Your task to perform on an android device: Go to internet settings Image 0: 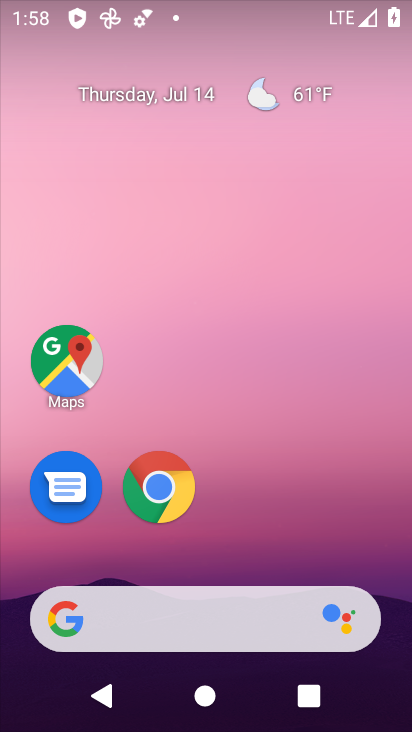
Step 0: drag from (350, 549) to (361, 192)
Your task to perform on an android device: Go to internet settings Image 1: 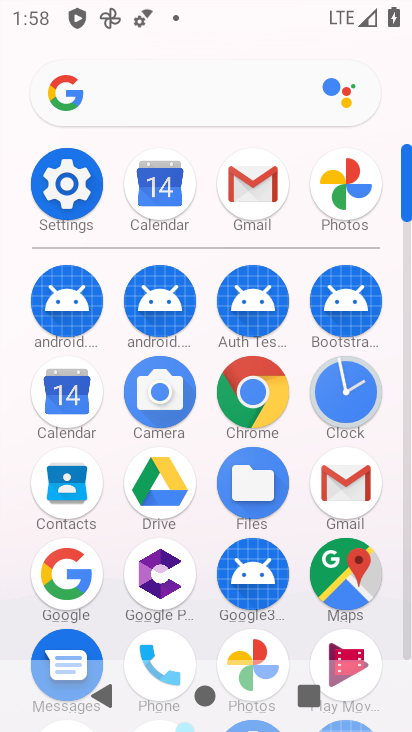
Step 1: click (68, 206)
Your task to perform on an android device: Go to internet settings Image 2: 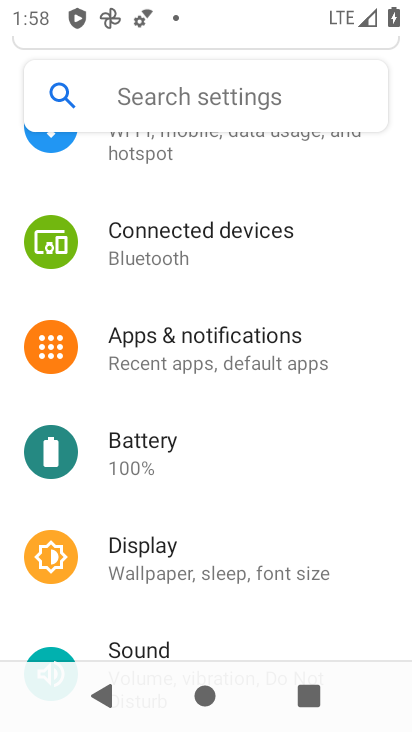
Step 2: drag from (336, 540) to (338, 439)
Your task to perform on an android device: Go to internet settings Image 3: 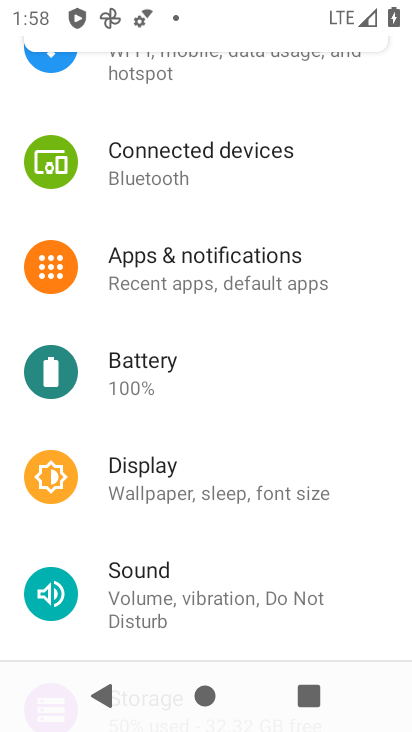
Step 3: drag from (355, 558) to (355, 444)
Your task to perform on an android device: Go to internet settings Image 4: 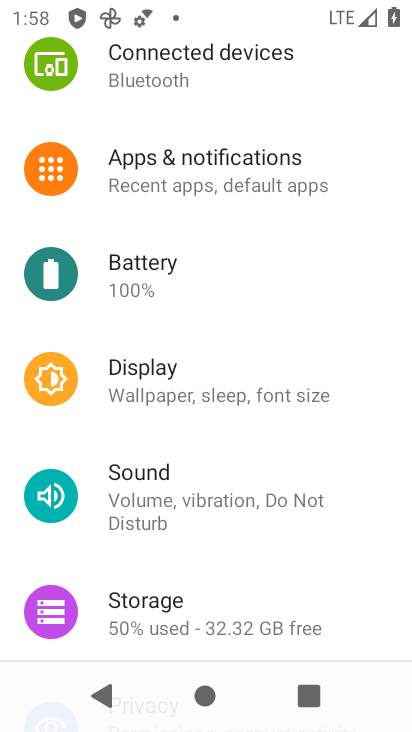
Step 4: drag from (334, 564) to (351, 457)
Your task to perform on an android device: Go to internet settings Image 5: 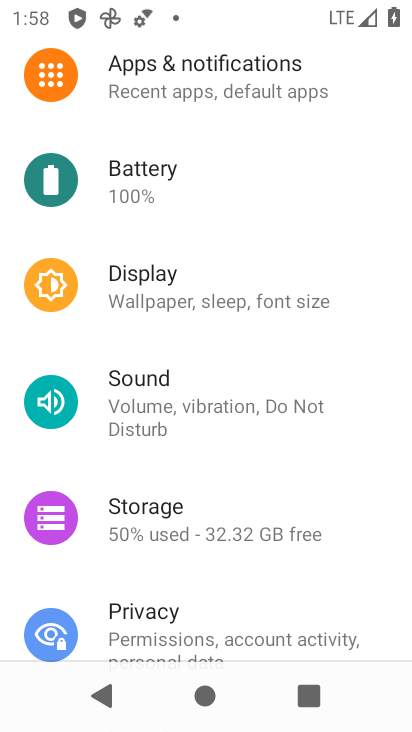
Step 5: drag from (341, 555) to (361, 393)
Your task to perform on an android device: Go to internet settings Image 6: 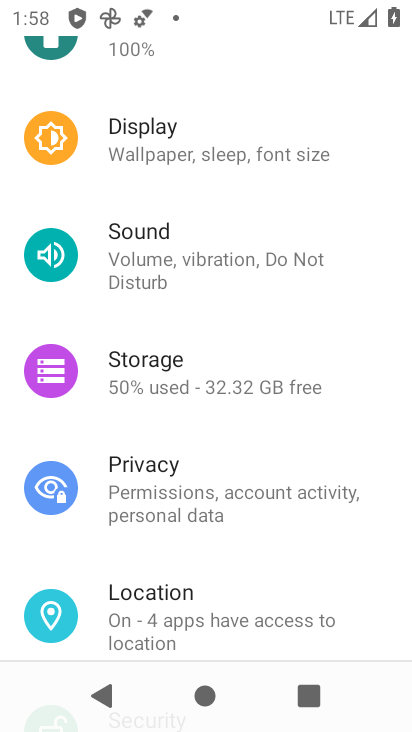
Step 6: drag from (357, 550) to (373, 434)
Your task to perform on an android device: Go to internet settings Image 7: 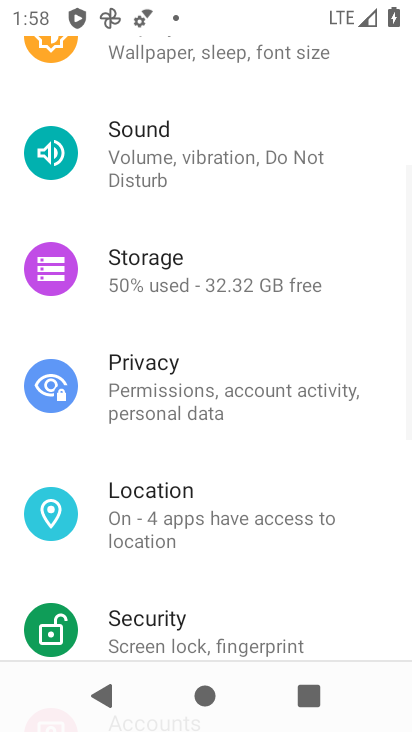
Step 7: drag from (366, 569) to (370, 465)
Your task to perform on an android device: Go to internet settings Image 8: 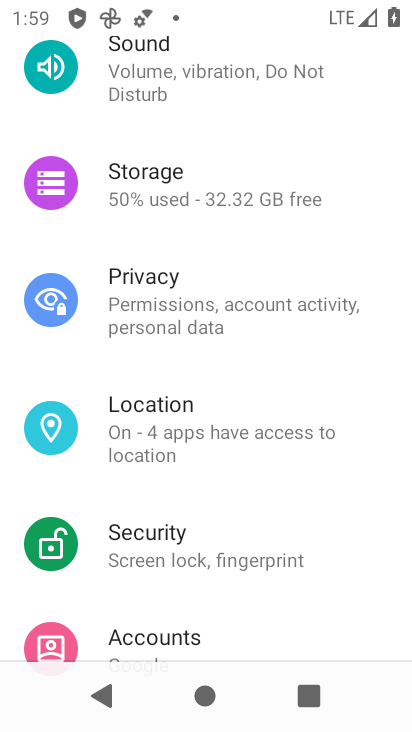
Step 8: drag from (340, 581) to (338, 480)
Your task to perform on an android device: Go to internet settings Image 9: 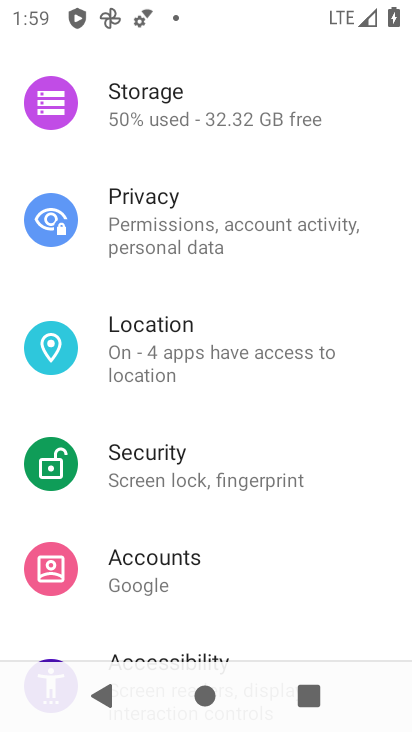
Step 9: drag from (333, 584) to (347, 466)
Your task to perform on an android device: Go to internet settings Image 10: 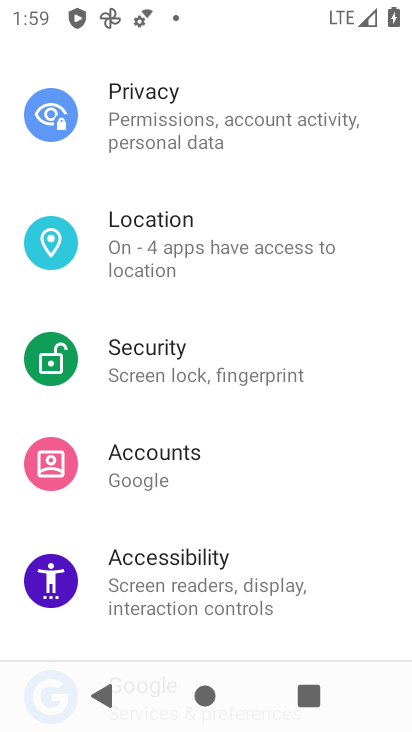
Step 10: drag from (356, 580) to (356, 430)
Your task to perform on an android device: Go to internet settings Image 11: 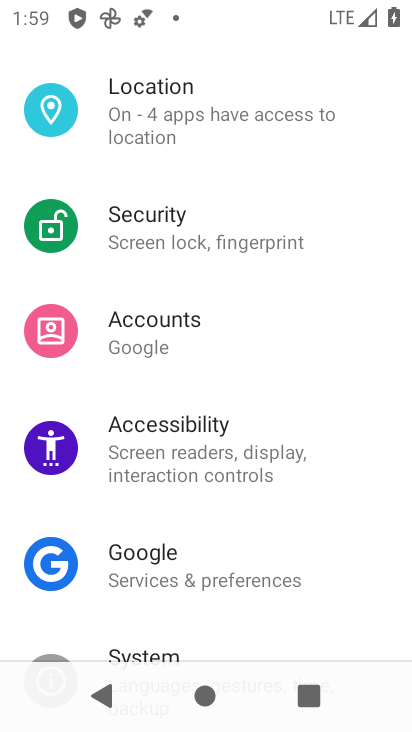
Step 11: drag from (356, 573) to (384, 323)
Your task to perform on an android device: Go to internet settings Image 12: 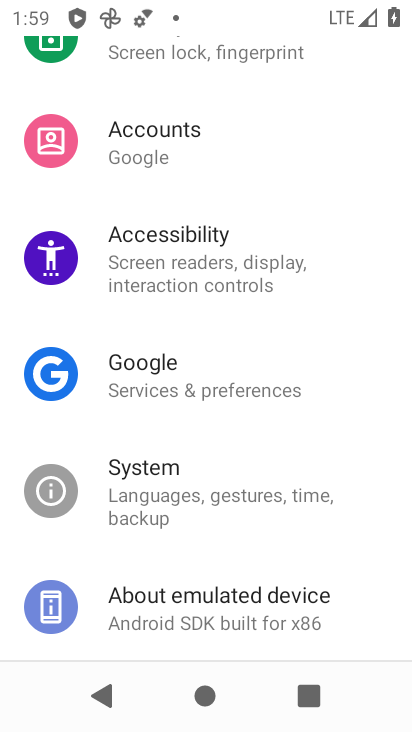
Step 12: drag from (384, 284) to (385, 385)
Your task to perform on an android device: Go to internet settings Image 13: 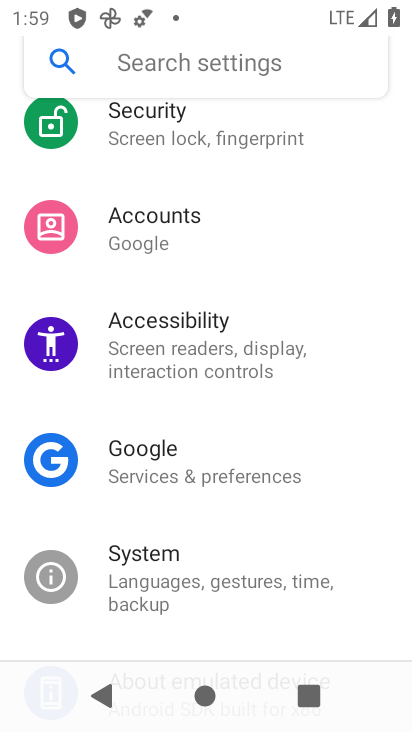
Step 13: drag from (386, 281) to (368, 389)
Your task to perform on an android device: Go to internet settings Image 14: 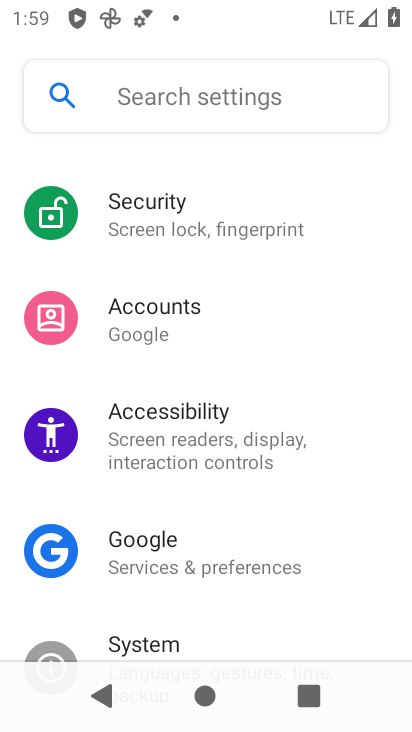
Step 14: drag from (348, 277) to (343, 395)
Your task to perform on an android device: Go to internet settings Image 15: 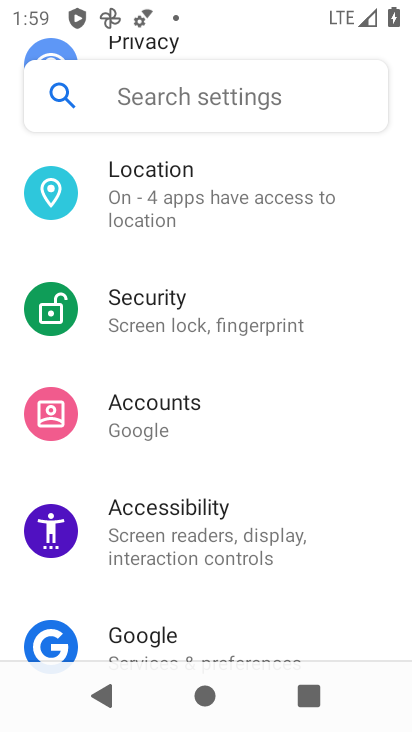
Step 15: drag from (343, 301) to (342, 443)
Your task to perform on an android device: Go to internet settings Image 16: 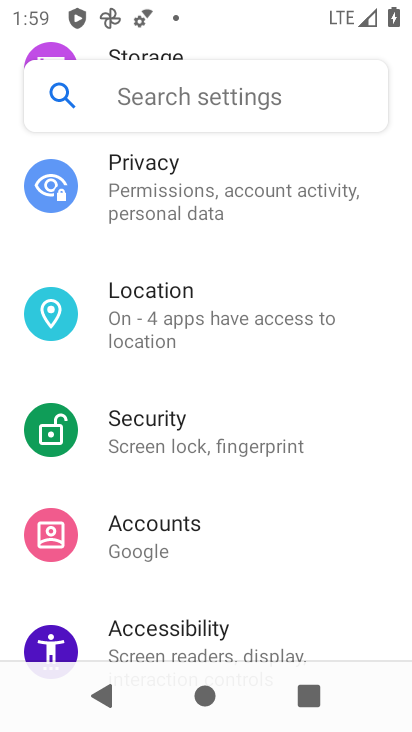
Step 16: drag from (368, 311) to (359, 433)
Your task to perform on an android device: Go to internet settings Image 17: 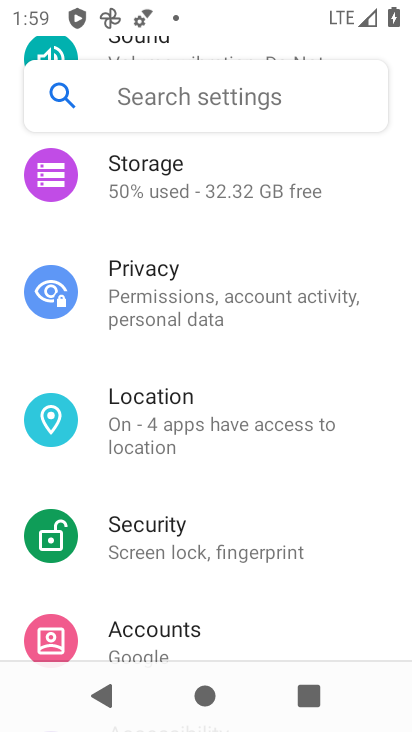
Step 17: drag from (364, 340) to (357, 532)
Your task to perform on an android device: Go to internet settings Image 18: 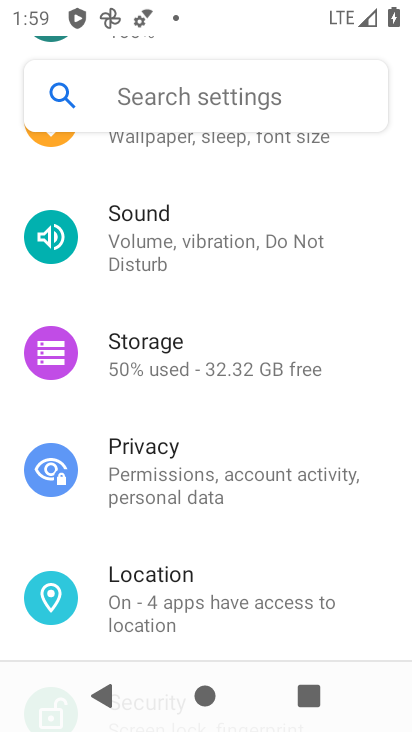
Step 18: drag from (362, 289) to (354, 450)
Your task to perform on an android device: Go to internet settings Image 19: 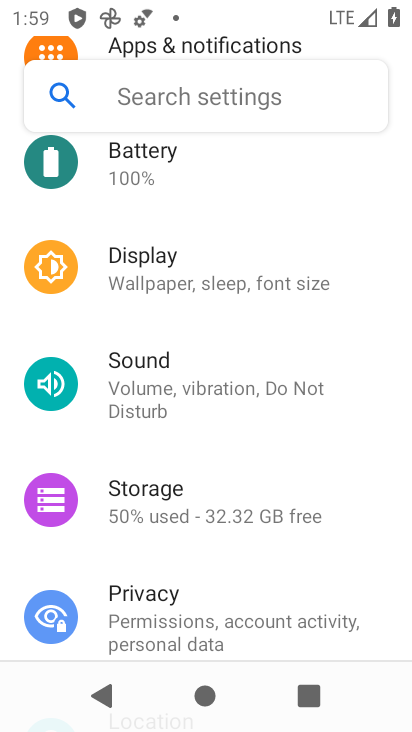
Step 19: drag from (360, 275) to (360, 439)
Your task to perform on an android device: Go to internet settings Image 20: 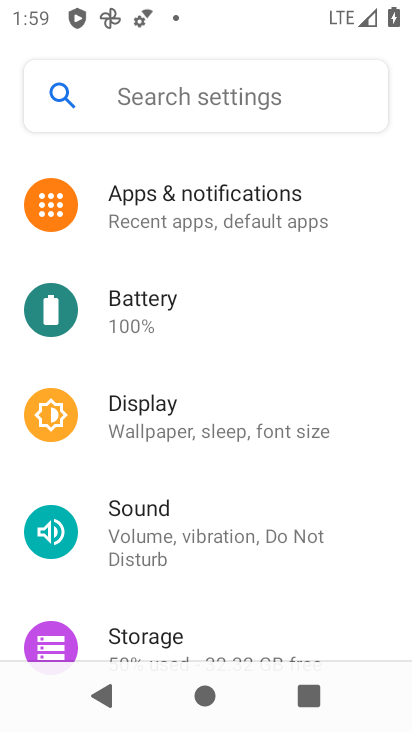
Step 20: drag from (360, 298) to (357, 494)
Your task to perform on an android device: Go to internet settings Image 21: 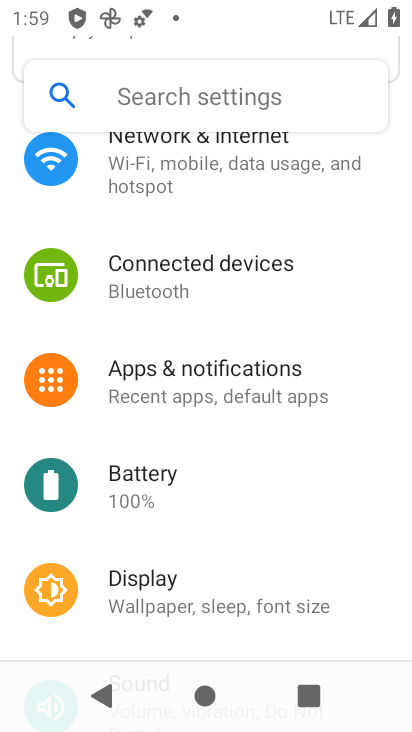
Step 21: drag from (369, 253) to (361, 424)
Your task to perform on an android device: Go to internet settings Image 22: 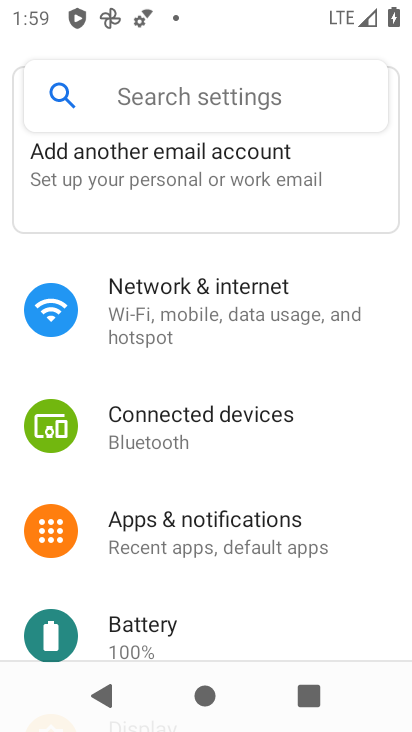
Step 22: click (286, 309)
Your task to perform on an android device: Go to internet settings Image 23: 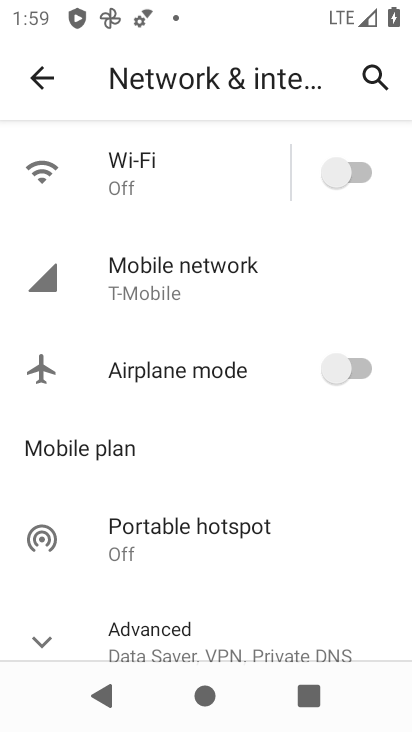
Step 23: task complete